Your task to perform on an android device: How much does a 3 bedroom apartment rent for in Chicago? Image 0: 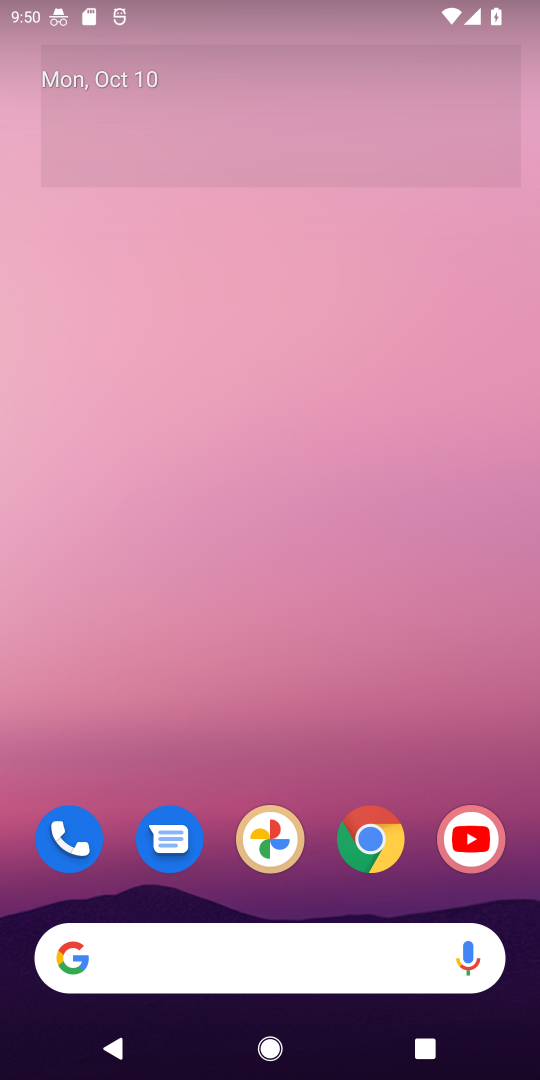
Step 0: drag from (319, 900) to (301, 0)
Your task to perform on an android device: How much does a 3 bedroom apartment rent for in Chicago? Image 1: 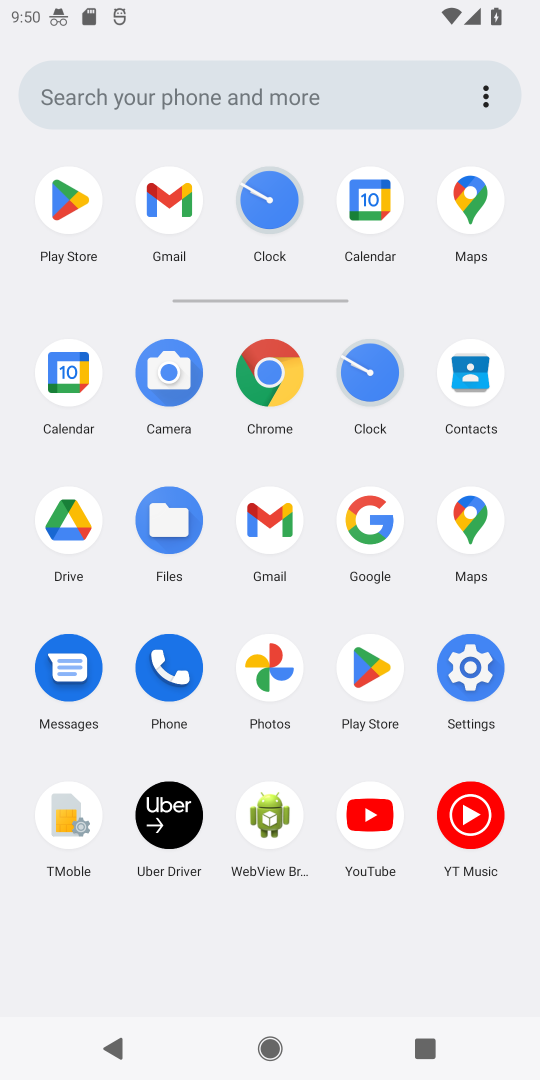
Step 1: click (260, 368)
Your task to perform on an android device: How much does a 3 bedroom apartment rent for in Chicago? Image 2: 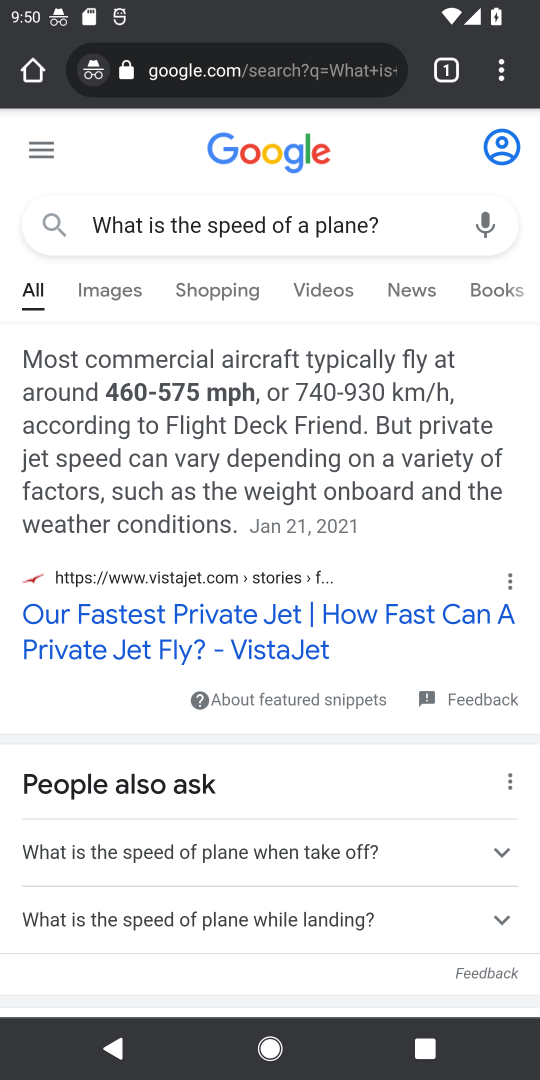
Step 2: click (289, 59)
Your task to perform on an android device: How much does a 3 bedroom apartment rent for in Chicago? Image 3: 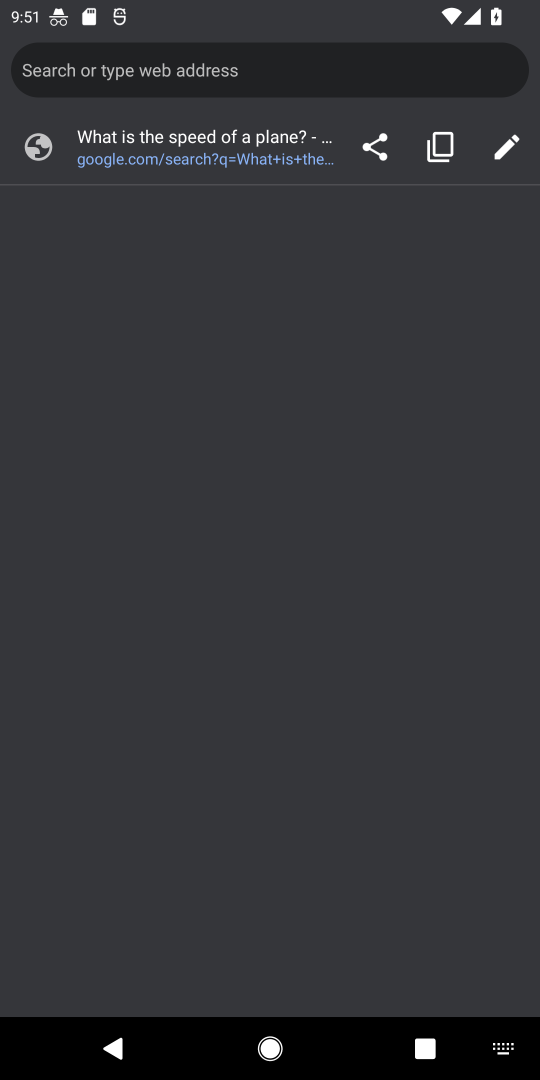
Step 3: type "3 bedroom apartment in Chicago rent"
Your task to perform on an android device: How much does a 3 bedroom apartment rent for in Chicago? Image 4: 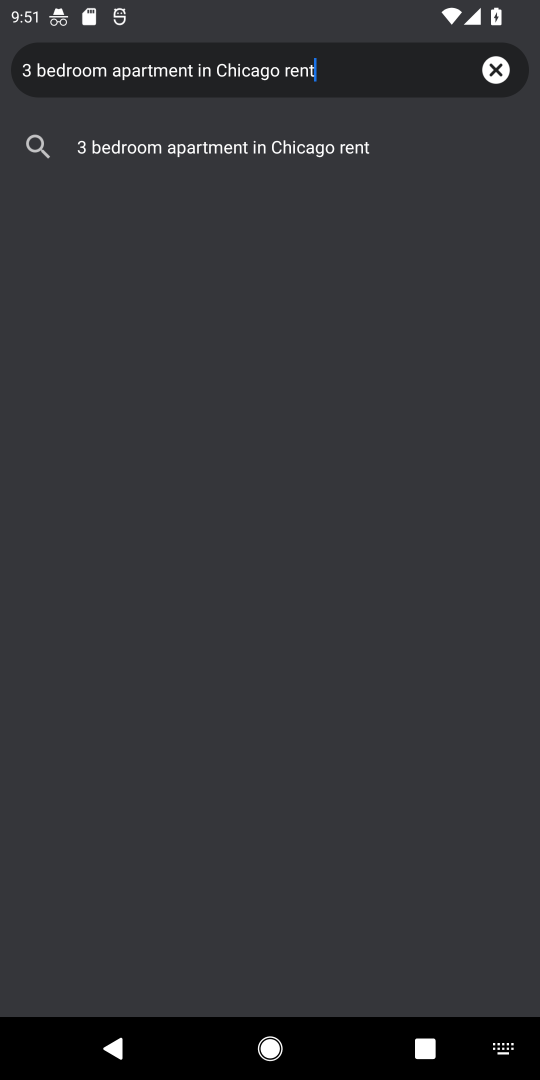
Step 4: press enter
Your task to perform on an android device: How much does a 3 bedroom apartment rent for in Chicago? Image 5: 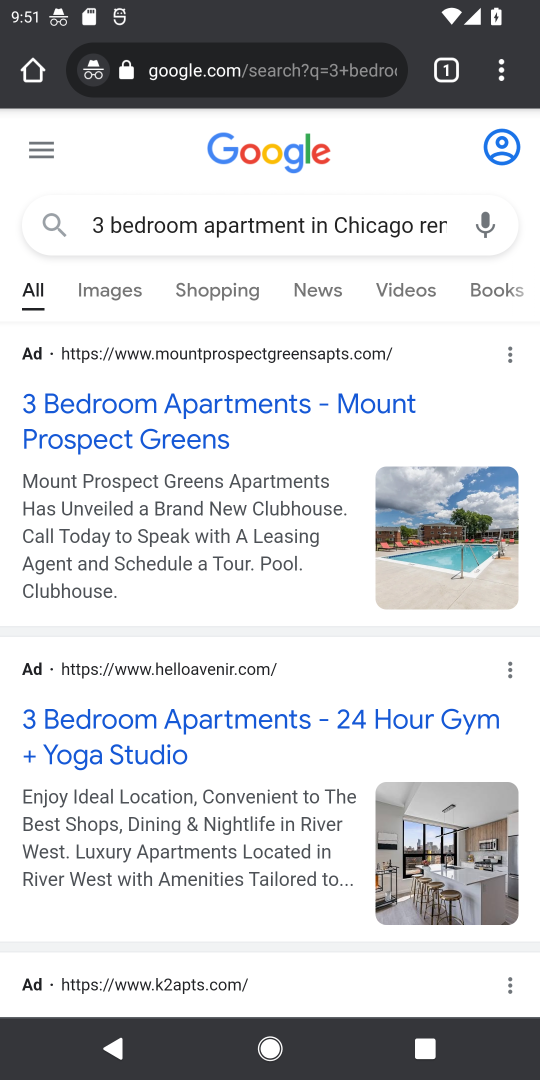
Step 5: task complete